Your task to perform on an android device: Open Youtube and go to "Your channel" Image 0: 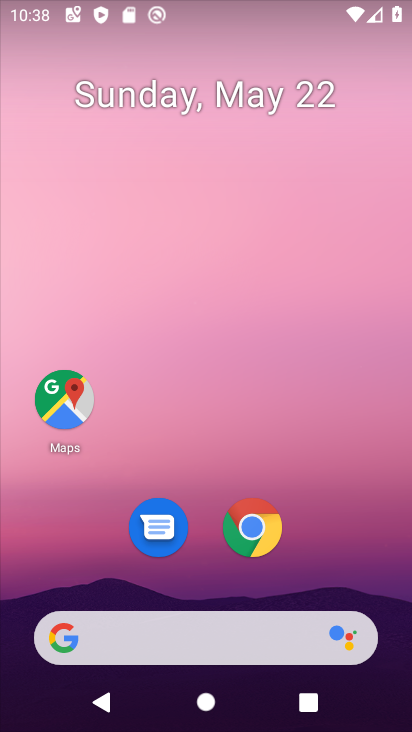
Step 0: drag from (342, 573) to (327, 331)
Your task to perform on an android device: Open Youtube and go to "Your channel" Image 1: 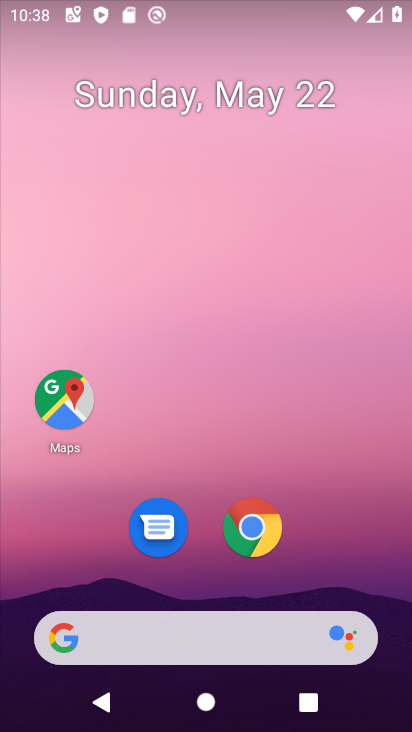
Step 1: drag from (358, 530) to (348, 101)
Your task to perform on an android device: Open Youtube and go to "Your channel" Image 2: 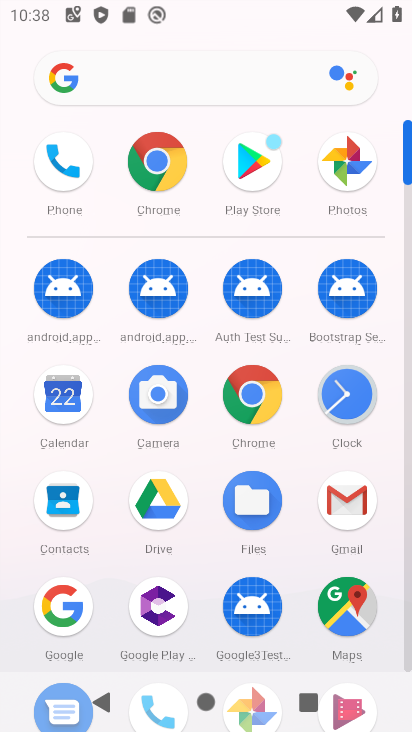
Step 2: click (405, 633)
Your task to perform on an android device: Open Youtube and go to "Your channel" Image 3: 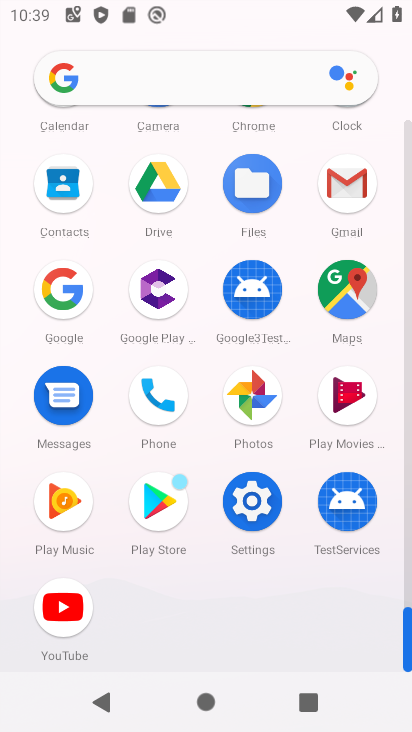
Step 3: click (45, 598)
Your task to perform on an android device: Open Youtube and go to "Your channel" Image 4: 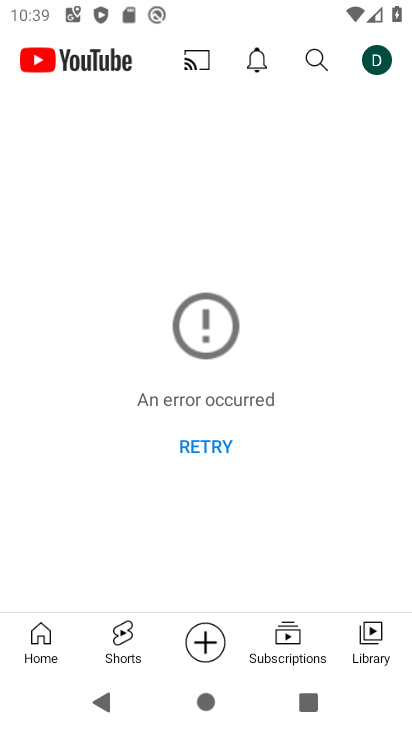
Step 4: click (389, 630)
Your task to perform on an android device: Open Youtube and go to "Your channel" Image 5: 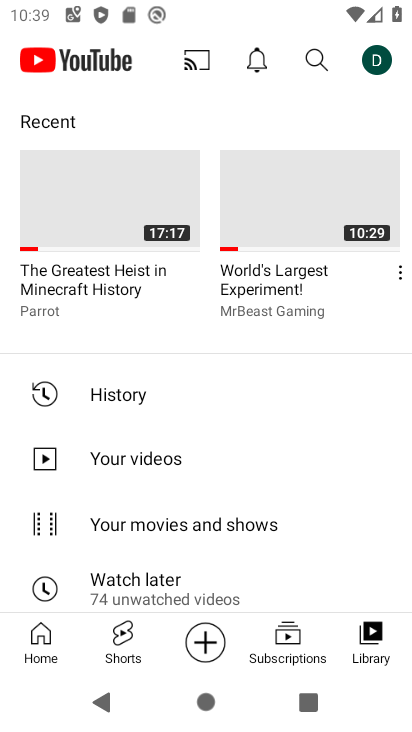
Step 5: click (373, 52)
Your task to perform on an android device: Open Youtube and go to "Your channel" Image 6: 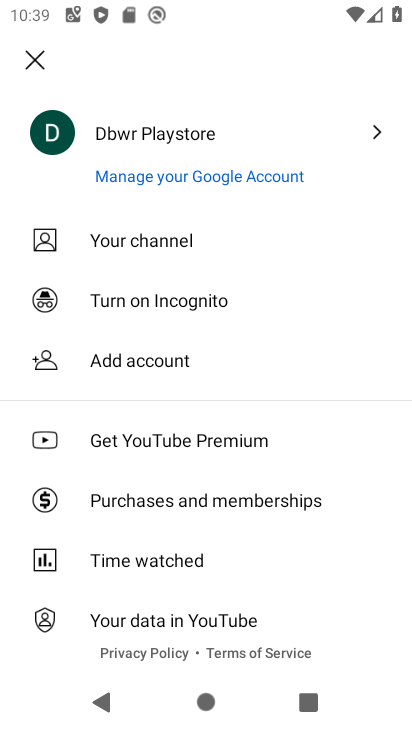
Step 6: click (138, 260)
Your task to perform on an android device: Open Youtube and go to "Your channel" Image 7: 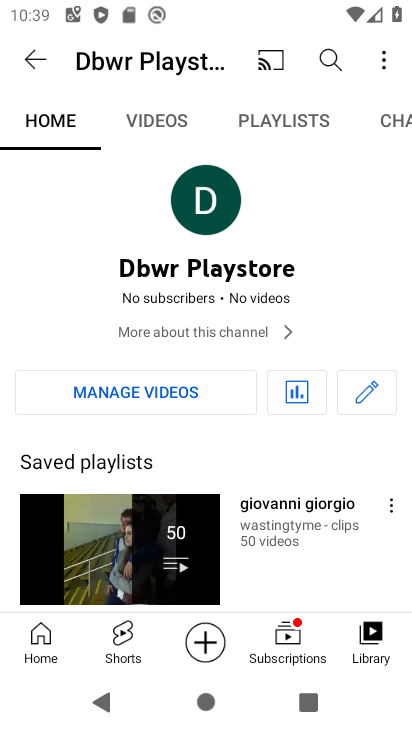
Step 7: task complete